Your task to perform on an android device: Open network settings Image 0: 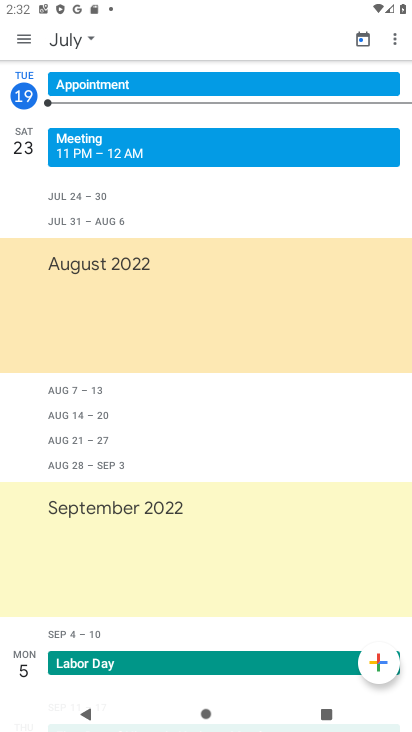
Step 0: press home button
Your task to perform on an android device: Open network settings Image 1: 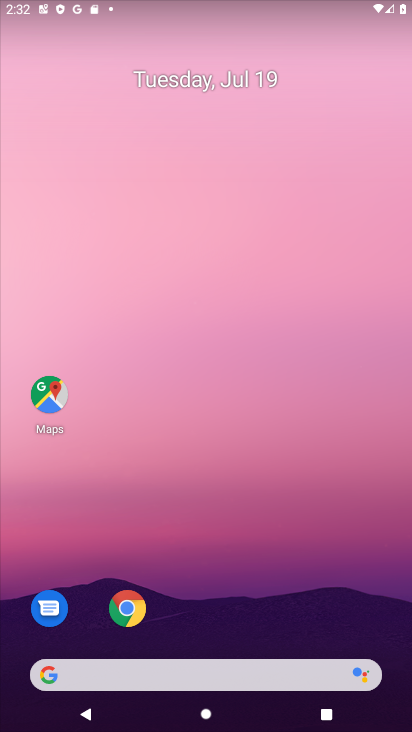
Step 1: drag from (314, 608) to (240, 68)
Your task to perform on an android device: Open network settings Image 2: 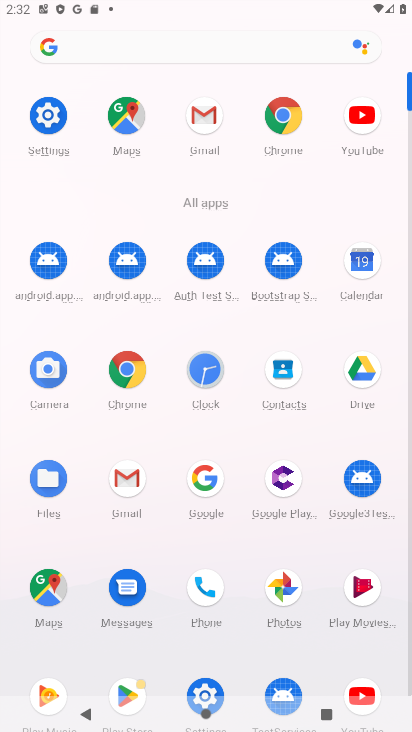
Step 2: click (47, 116)
Your task to perform on an android device: Open network settings Image 3: 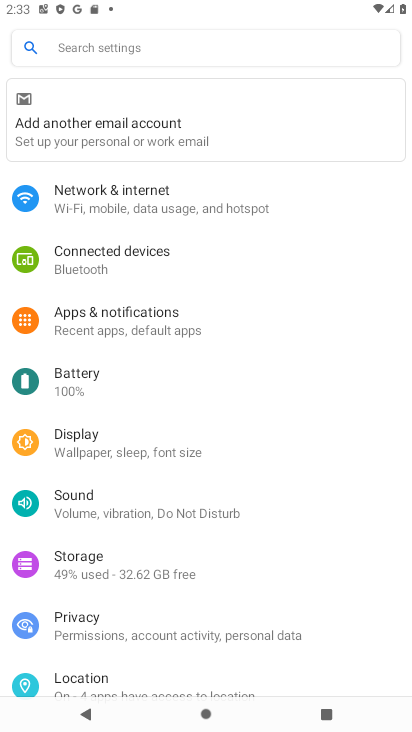
Step 3: click (80, 199)
Your task to perform on an android device: Open network settings Image 4: 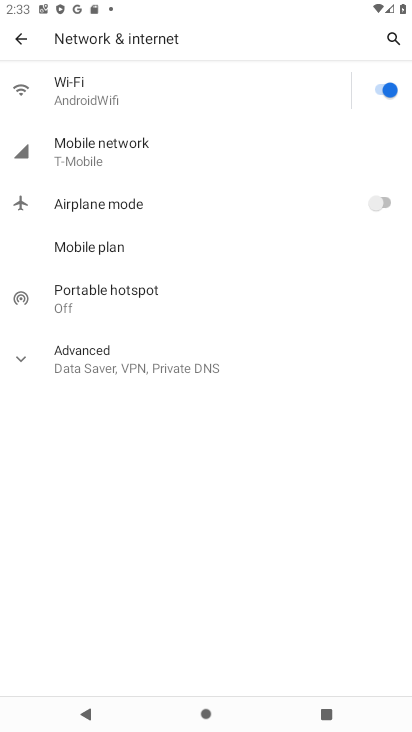
Step 4: task complete